Your task to perform on an android device: manage bookmarks in the chrome app Image 0: 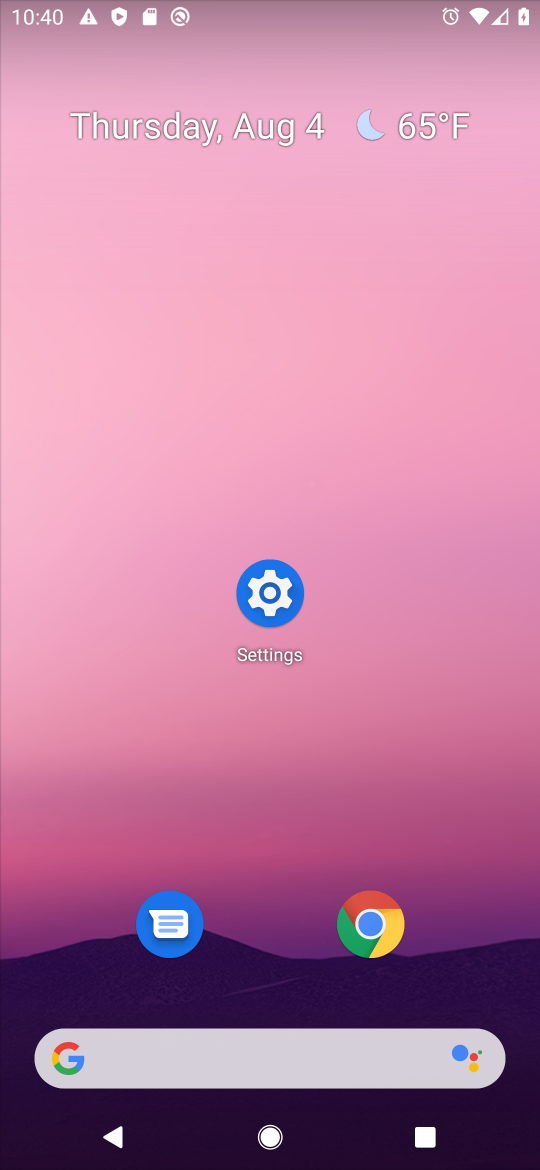
Step 0: press home button
Your task to perform on an android device: manage bookmarks in the chrome app Image 1: 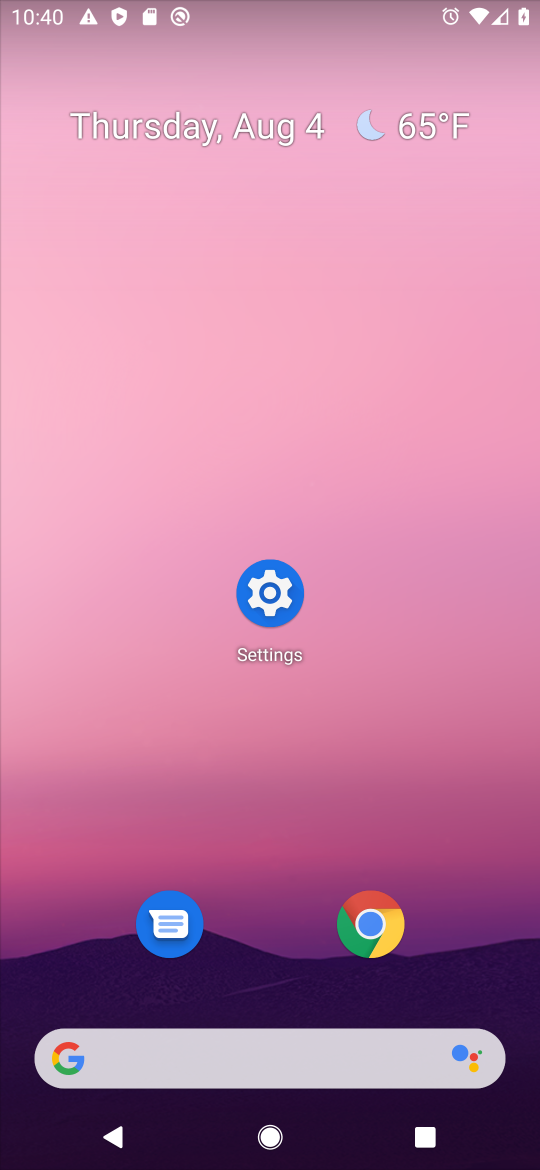
Step 1: click (369, 924)
Your task to perform on an android device: manage bookmarks in the chrome app Image 2: 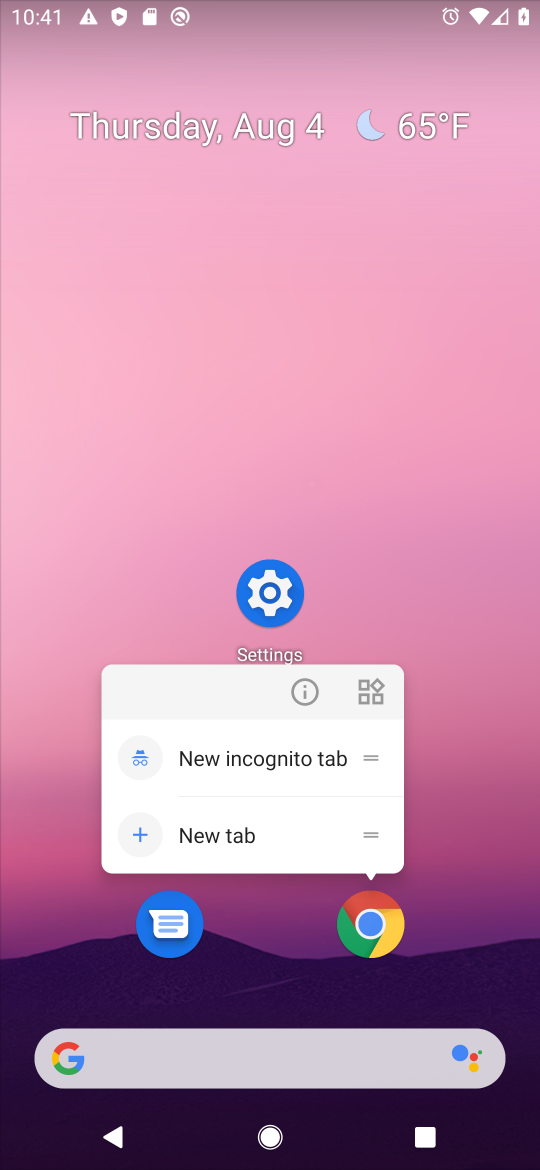
Step 2: click (369, 930)
Your task to perform on an android device: manage bookmarks in the chrome app Image 3: 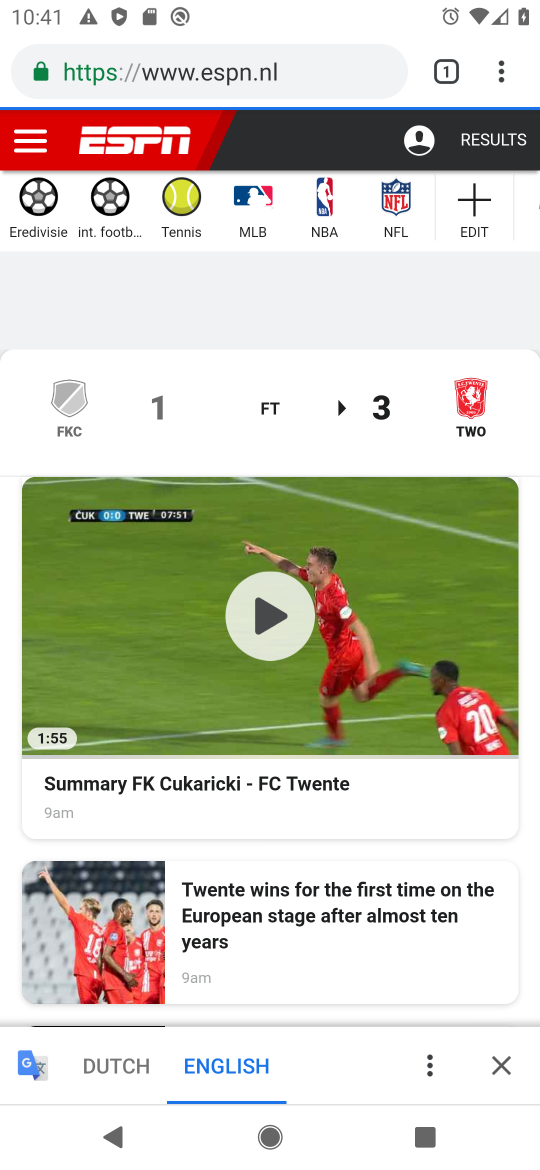
Step 3: drag from (500, 68) to (346, 274)
Your task to perform on an android device: manage bookmarks in the chrome app Image 4: 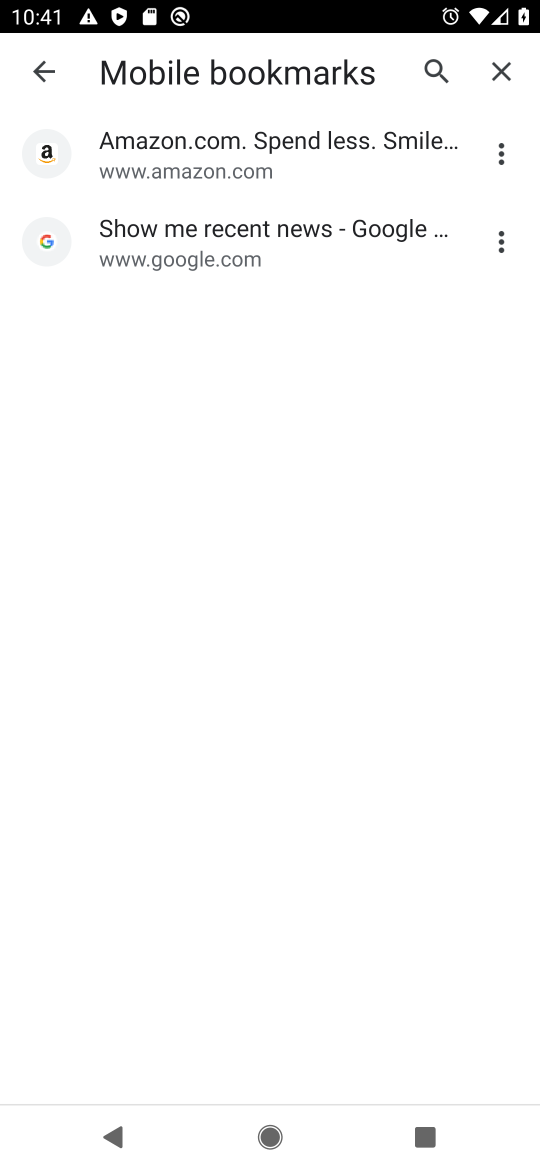
Step 4: click (497, 152)
Your task to perform on an android device: manage bookmarks in the chrome app Image 5: 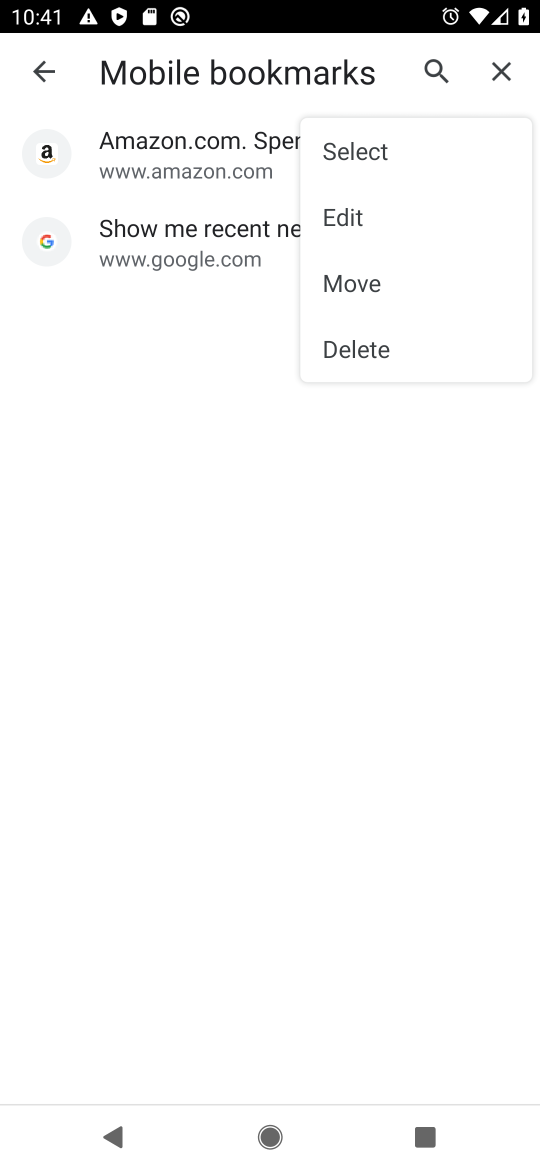
Step 5: click (360, 349)
Your task to perform on an android device: manage bookmarks in the chrome app Image 6: 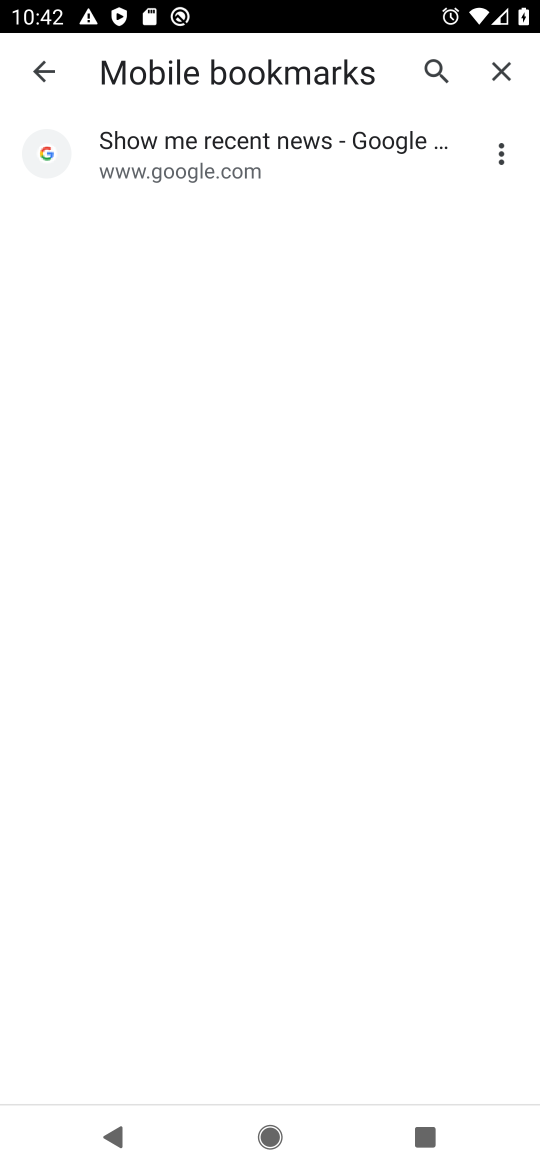
Step 6: task complete